Your task to perform on an android device: Search for pizza restaurants on Maps Image 0: 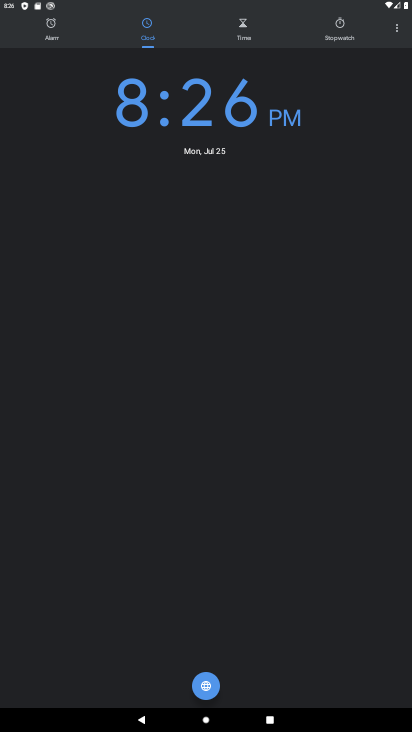
Step 0: press home button
Your task to perform on an android device: Search for pizza restaurants on Maps Image 1: 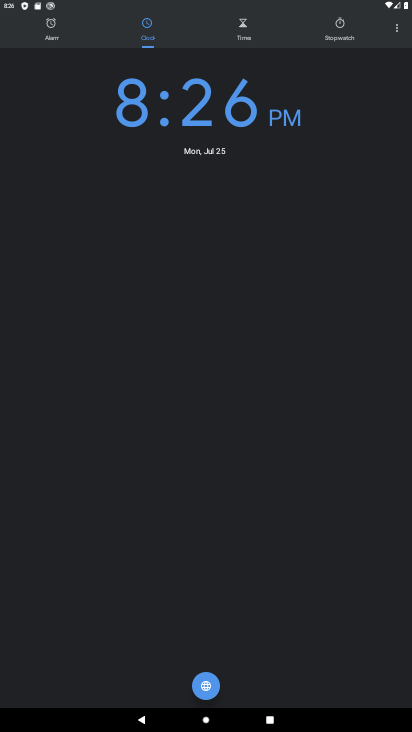
Step 1: press home button
Your task to perform on an android device: Search for pizza restaurants on Maps Image 2: 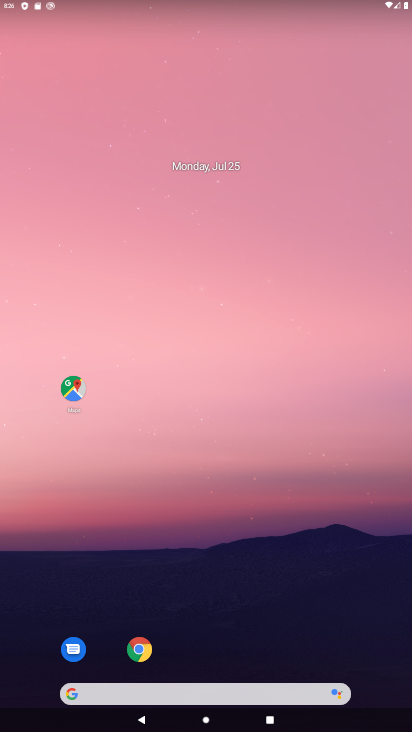
Step 2: drag from (206, 662) to (1, 62)
Your task to perform on an android device: Search for pizza restaurants on Maps Image 3: 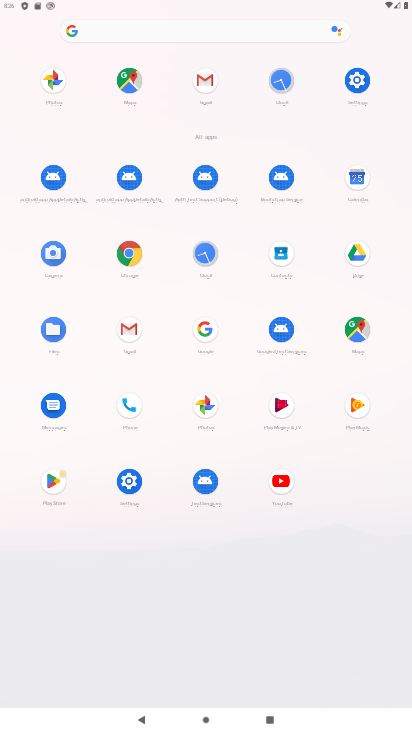
Step 3: click (351, 331)
Your task to perform on an android device: Search for pizza restaurants on Maps Image 4: 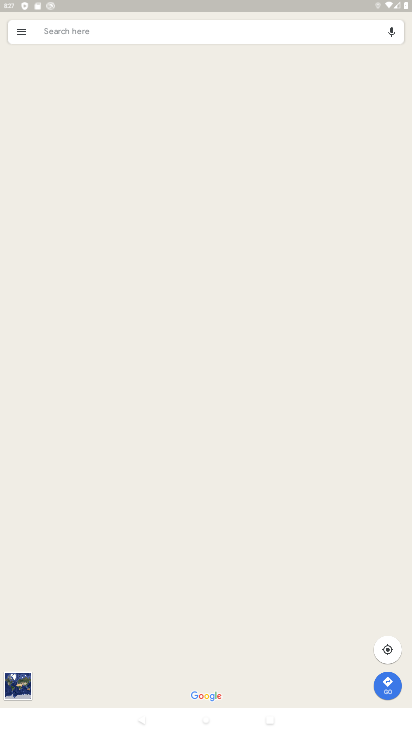
Step 4: click (151, 40)
Your task to perform on an android device: Search for pizza restaurants on Maps Image 5: 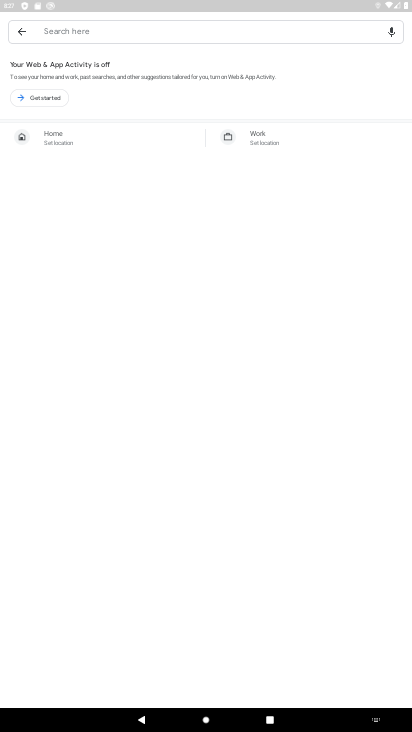
Step 5: click (35, 94)
Your task to perform on an android device: Search for pizza restaurants on Maps Image 6: 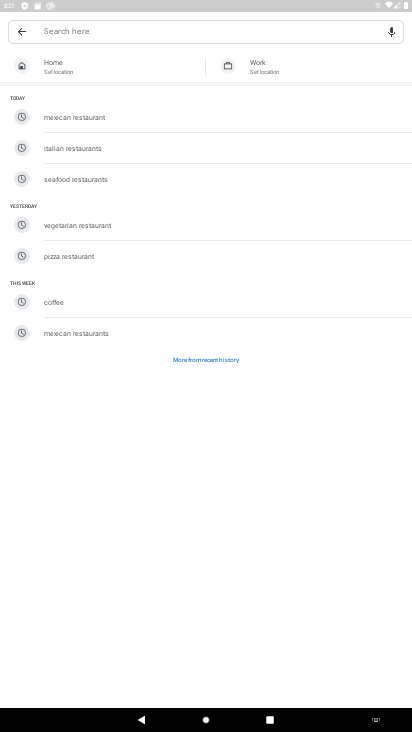
Step 6: click (60, 259)
Your task to perform on an android device: Search for pizza restaurants on Maps Image 7: 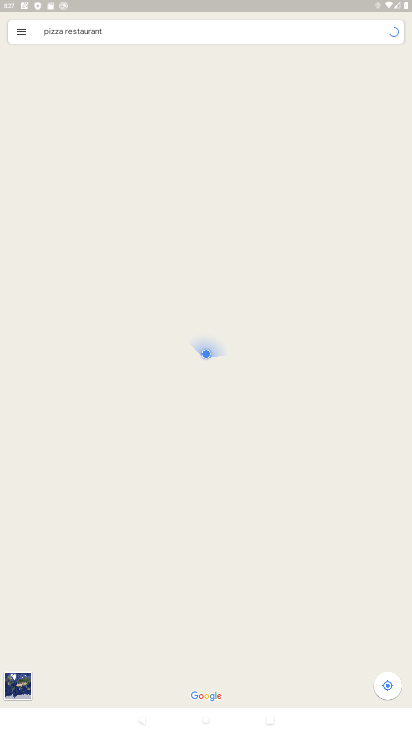
Step 7: task complete